Your task to perform on an android device: star an email in the gmail app Image 0: 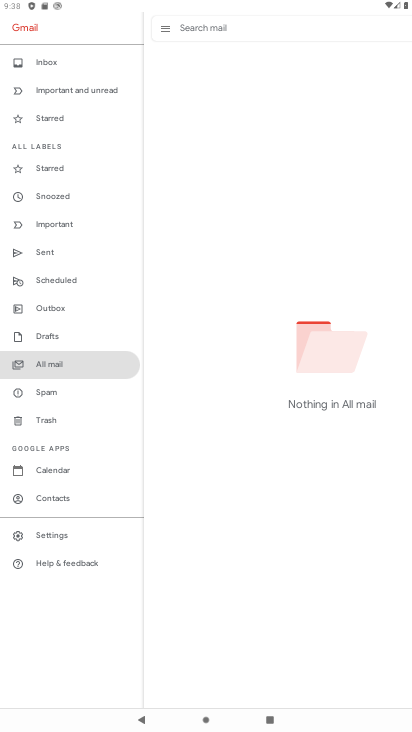
Step 0: click (171, 691)
Your task to perform on an android device: star an email in the gmail app Image 1: 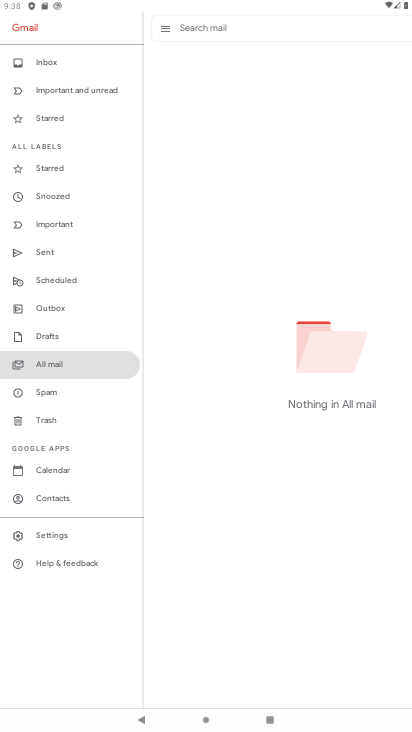
Step 1: click (53, 164)
Your task to perform on an android device: star an email in the gmail app Image 2: 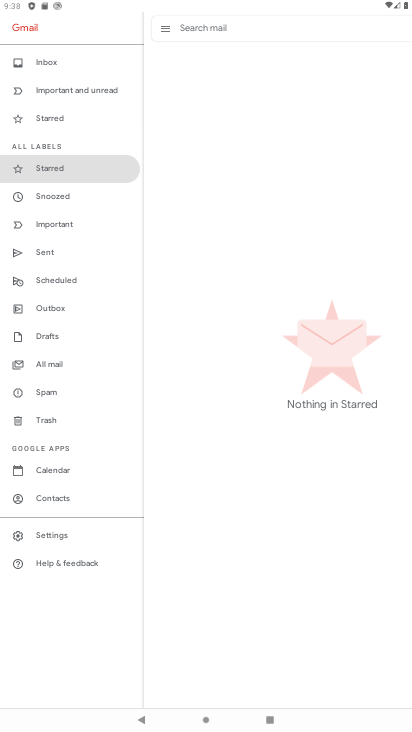
Step 2: task complete